Your task to perform on an android device: toggle show notifications on the lock screen Image 0: 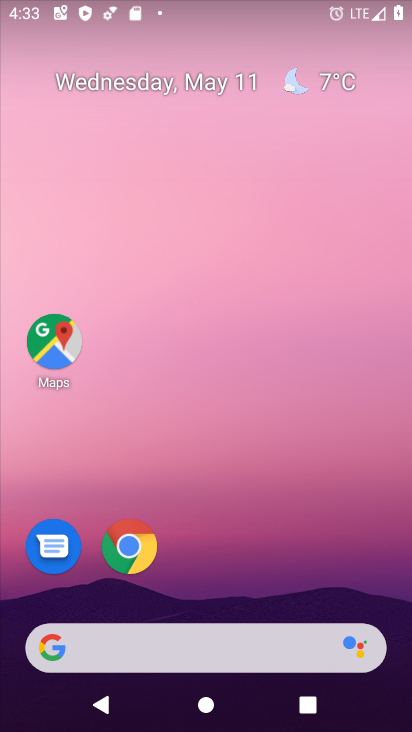
Step 0: drag from (293, 581) to (377, 6)
Your task to perform on an android device: toggle show notifications on the lock screen Image 1: 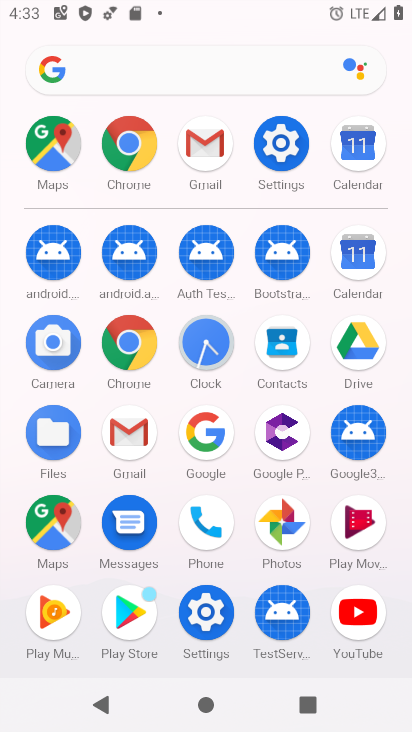
Step 1: click (262, 143)
Your task to perform on an android device: toggle show notifications on the lock screen Image 2: 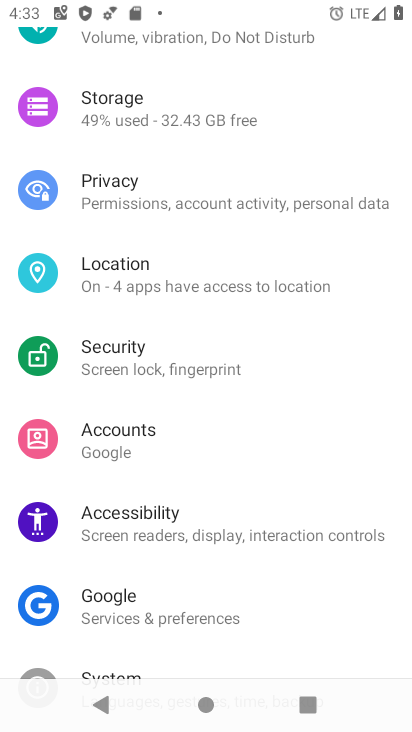
Step 2: drag from (209, 178) to (208, 591)
Your task to perform on an android device: toggle show notifications on the lock screen Image 3: 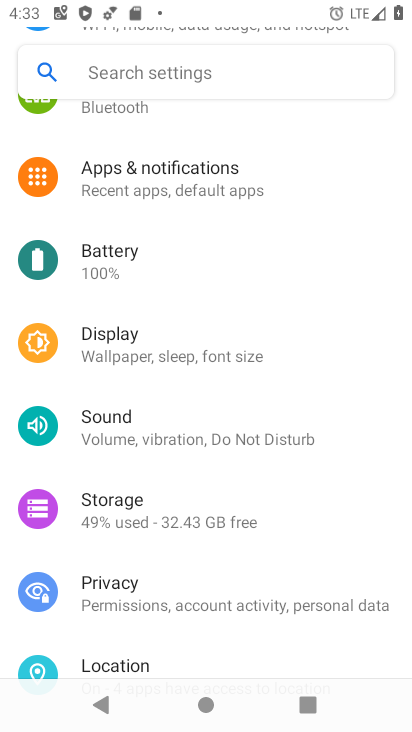
Step 3: click (194, 171)
Your task to perform on an android device: toggle show notifications on the lock screen Image 4: 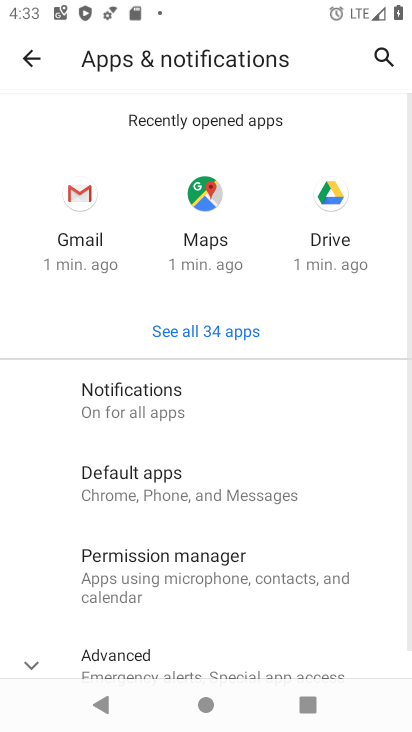
Step 4: drag from (261, 641) to (288, 390)
Your task to perform on an android device: toggle show notifications on the lock screen Image 5: 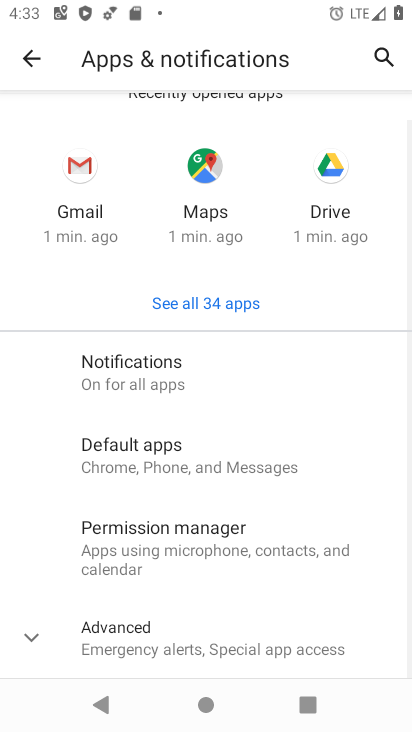
Step 5: click (235, 365)
Your task to perform on an android device: toggle show notifications on the lock screen Image 6: 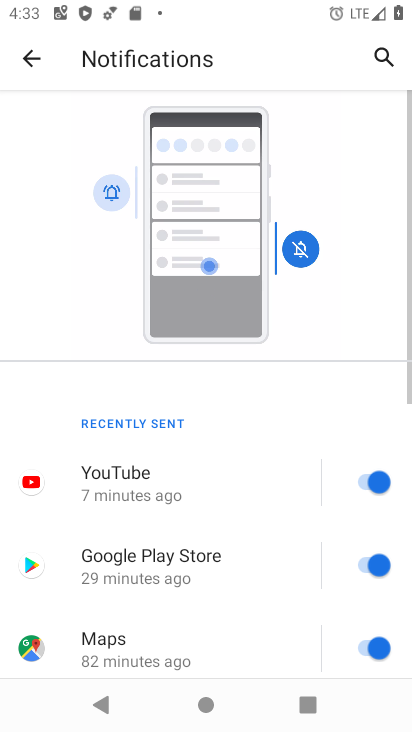
Step 6: drag from (287, 517) to (351, 126)
Your task to perform on an android device: toggle show notifications on the lock screen Image 7: 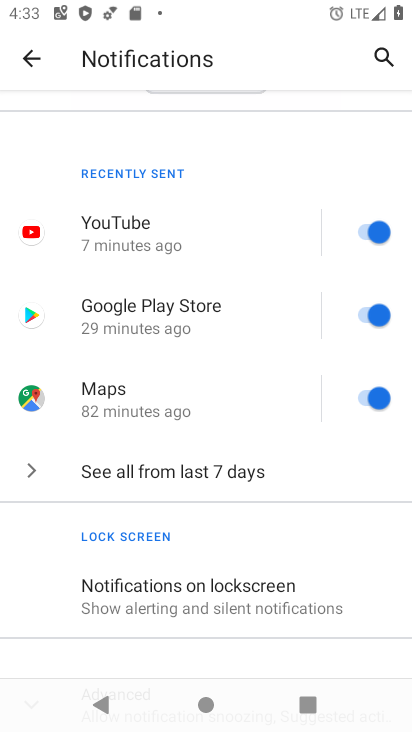
Step 7: click (254, 615)
Your task to perform on an android device: toggle show notifications on the lock screen Image 8: 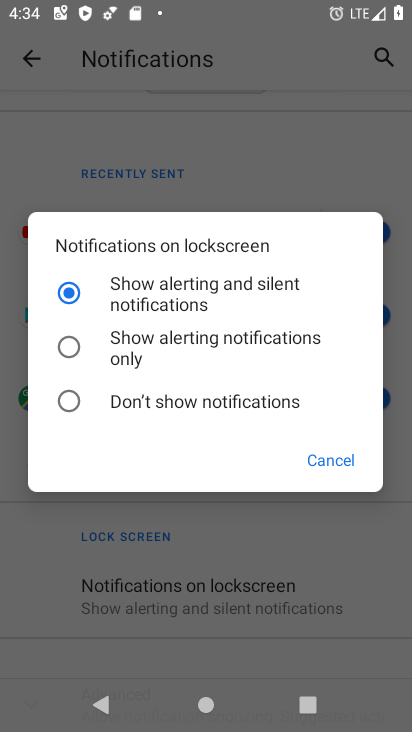
Step 8: click (72, 356)
Your task to perform on an android device: toggle show notifications on the lock screen Image 9: 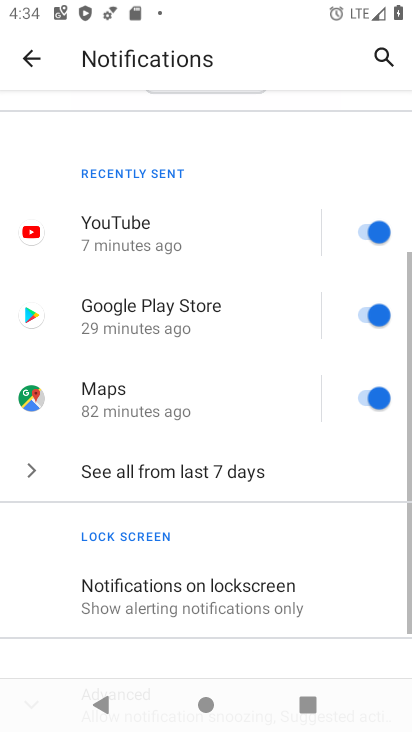
Step 9: task complete